Your task to perform on an android device: set default search engine in the chrome app Image 0: 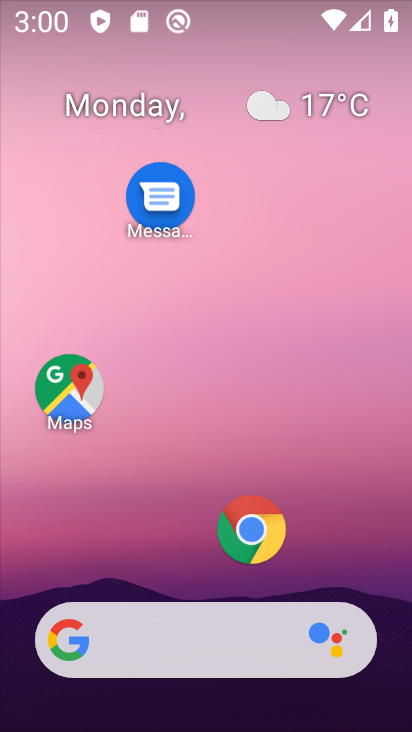
Step 0: press home button
Your task to perform on an android device: set default search engine in the chrome app Image 1: 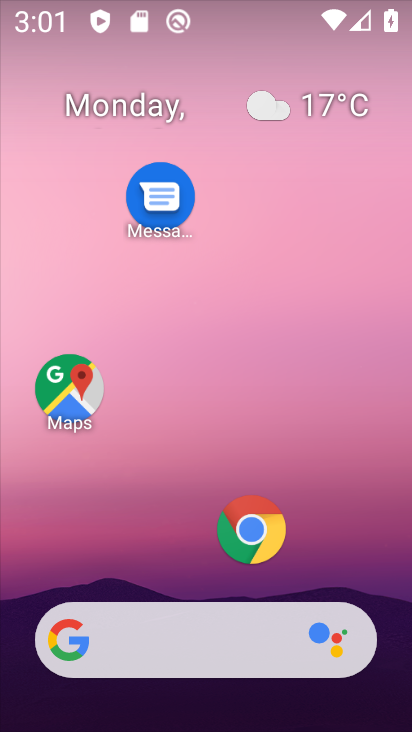
Step 1: click (246, 519)
Your task to perform on an android device: set default search engine in the chrome app Image 2: 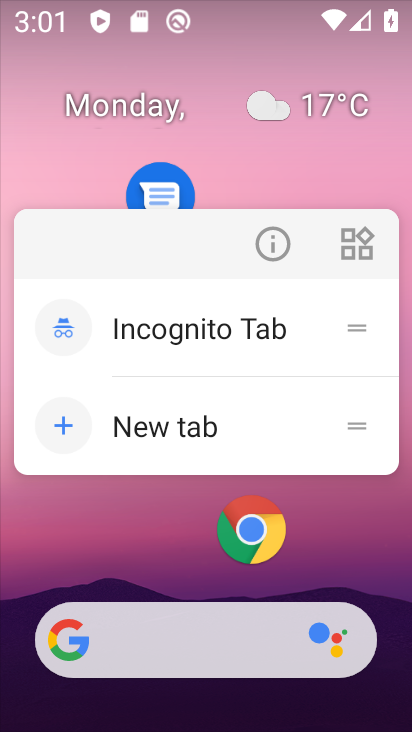
Step 2: click (246, 524)
Your task to perform on an android device: set default search engine in the chrome app Image 3: 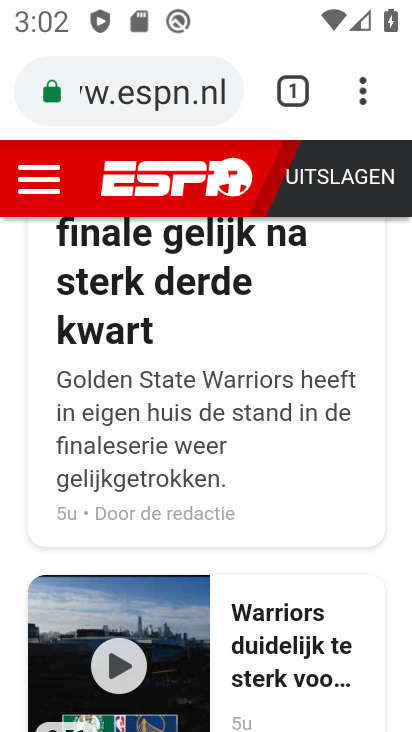
Step 3: click (369, 84)
Your task to perform on an android device: set default search engine in the chrome app Image 4: 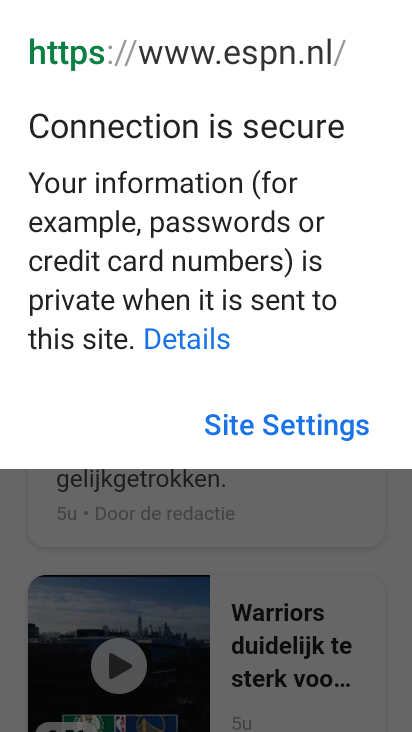
Step 4: click (258, 535)
Your task to perform on an android device: set default search engine in the chrome app Image 5: 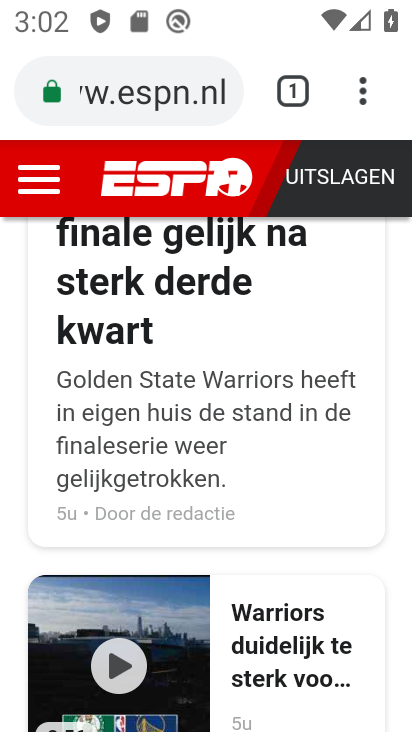
Step 5: click (359, 91)
Your task to perform on an android device: set default search engine in the chrome app Image 6: 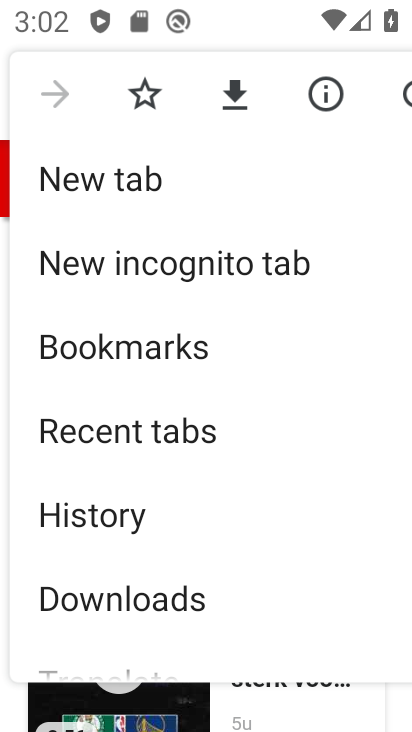
Step 6: drag from (227, 606) to (251, 142)
Your task to perform on an android device: set default search engine in the chrome app Image 7: 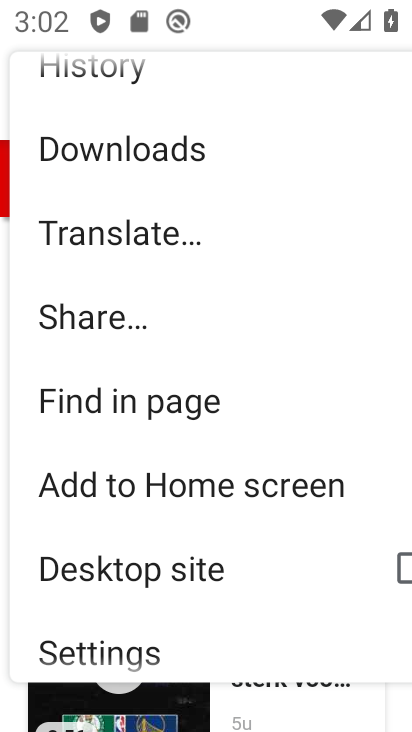
Step 7: click (190, 648)
Your task to perform on an android device: set default search engine in the chrome app Image 8: 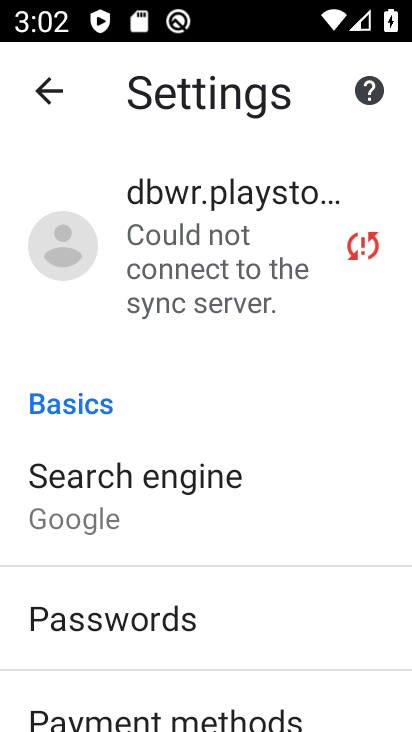
Step 8: click (194, 505)
Your task to perform on an android device: set default search engine in the chrome app Image 9: 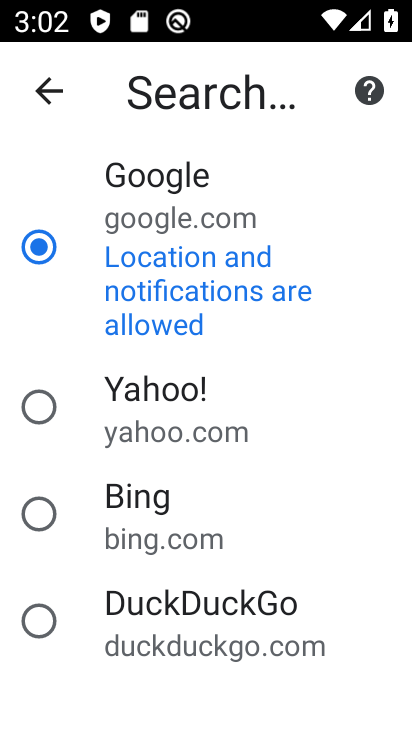
Step 9: click (45, 401)
Your task to perform on an android device: set default search engine in the chrome app Image 10: 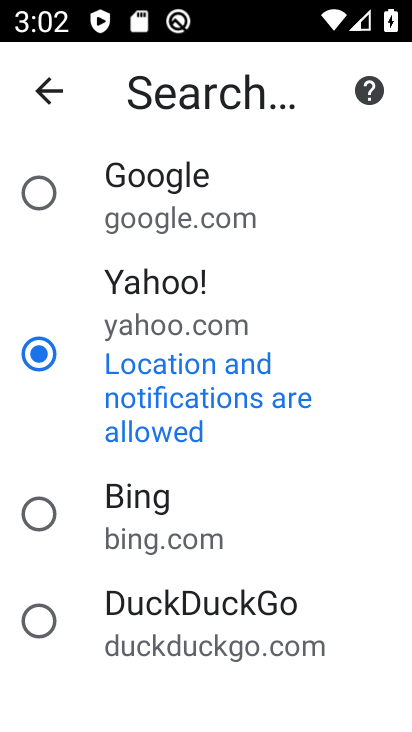
Step 10: task complete